Your task to perform on an android device: Go to display settings Image 0: 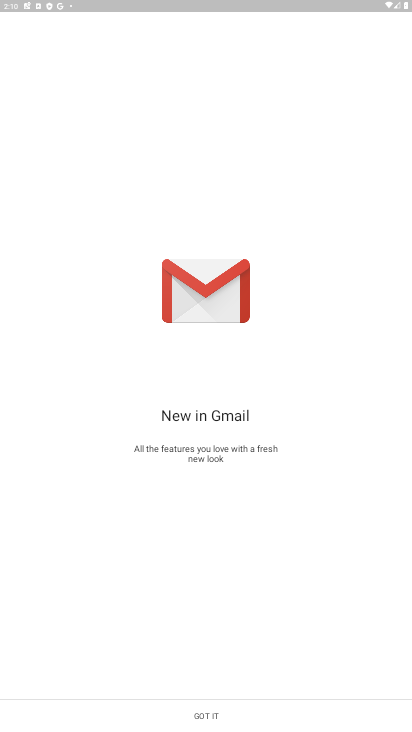
Step 0: press home button
Your task to perform on an android device: Go to display settings Image 1: 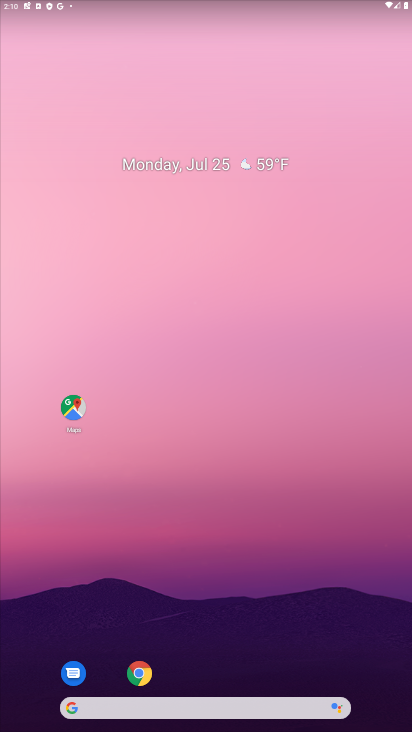
Step 1: drag from (208, 663) to (266, 121)
Your task to perform on an android device: Go to display settings Image 2: 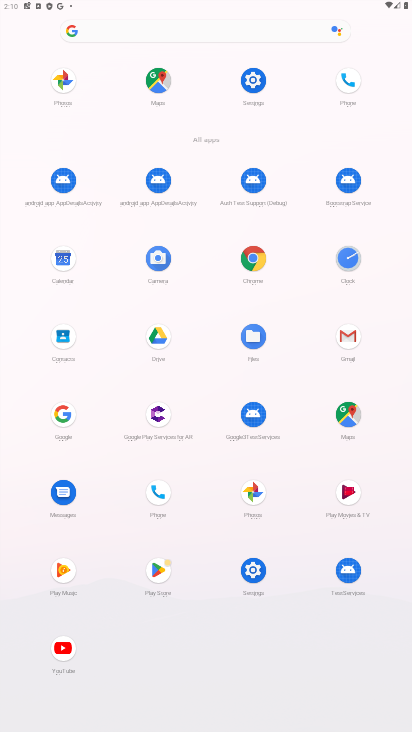
Step 2: click (261, 99)
Your task to perform on an android device: Go to display settings Image 3: 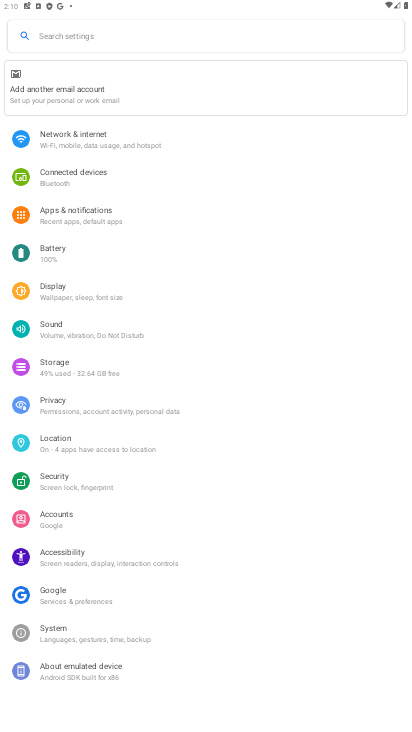
Step 3: click (57, 307)
Your task to perform on an android device: Go to display settings Image 4: 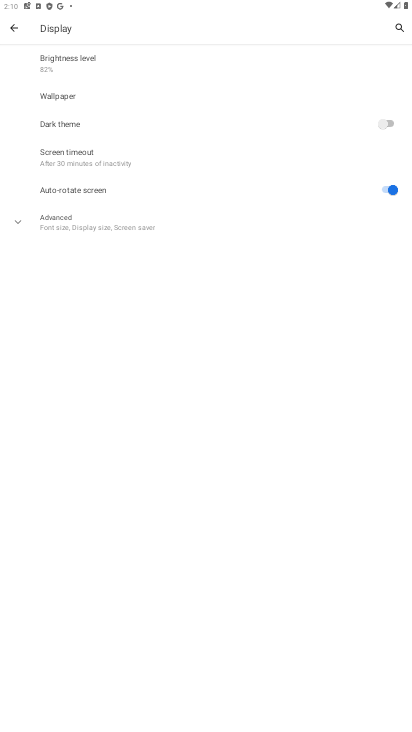
Step 4: task complete